Your task to perform on an android device: toggle priority inbox in the gmail app Image 0: 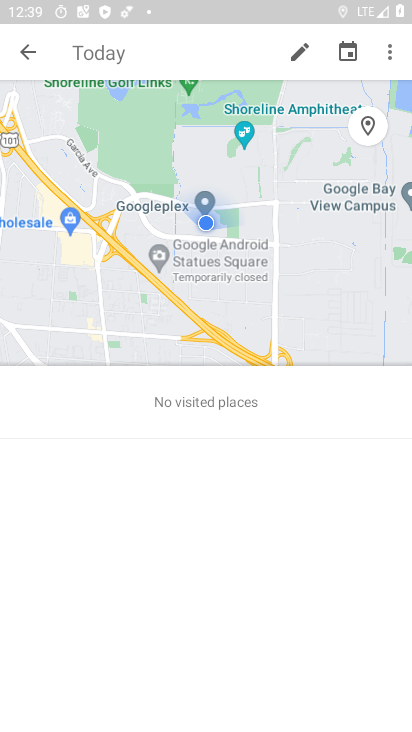
Step 0: press home button
Your task to perform on an android device: toggle priority inbox in the gmail app Image 1: 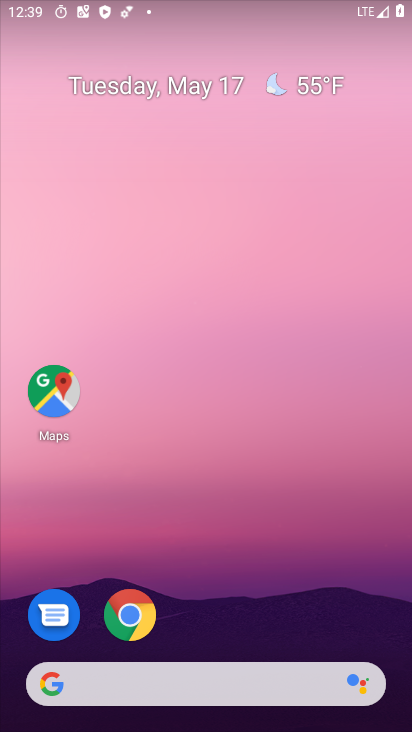
Step 1: drag from (296, 565) to (285, 73)
Your task to perform on an android device: toggle priority inbox in the gmail app Image 2: 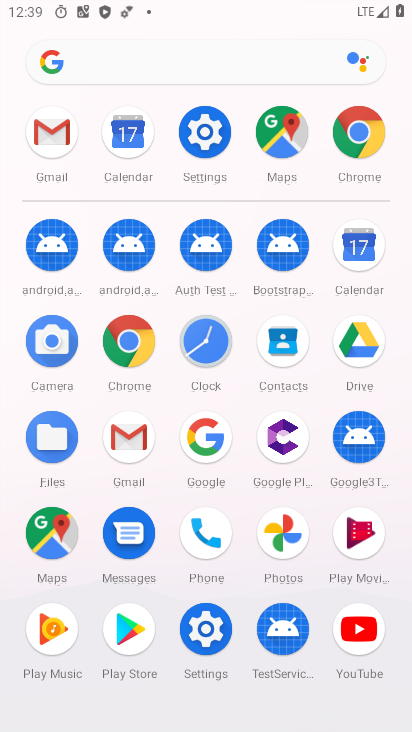
Step 2: click (52, 115)
Your task to perform on an android device: toggle priority inbox in the gmail app Image 3: 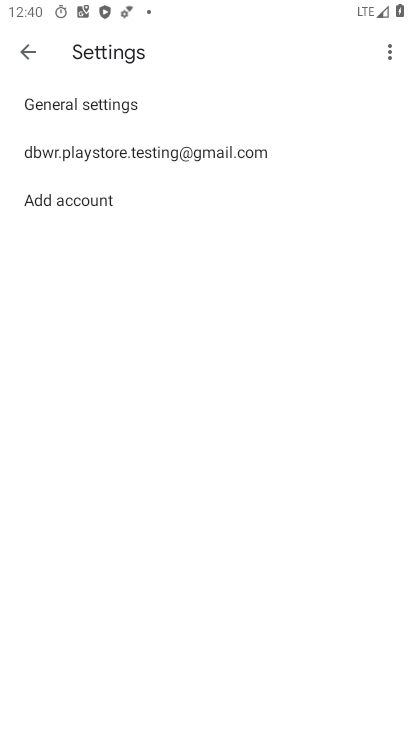
Step 3: click (71, 156)
Your task to perform on an android device: toggle priority inbox in the gmail app Image 4: 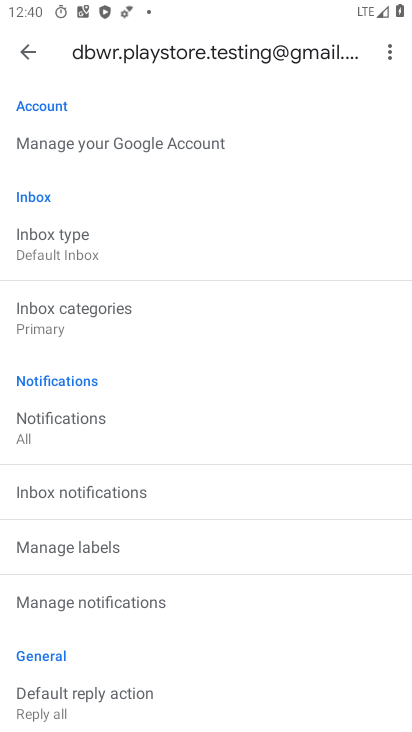
Step 4: click (91, 247)
Your task to perform on an android device: toggle priority inbox in the gmail app Image 5: 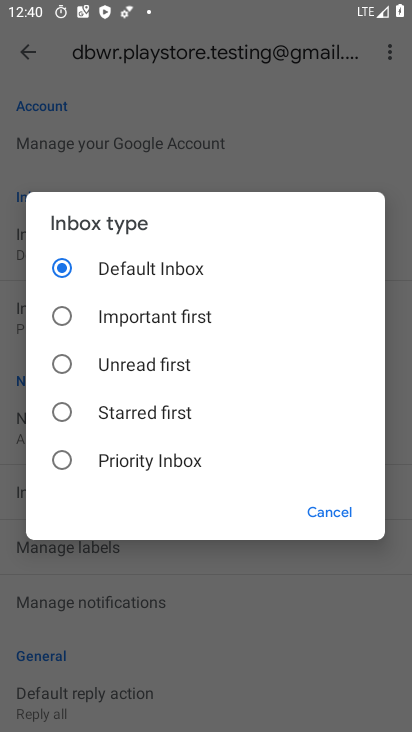
Step 5: click (130, 457)
Your task to perform on an android device: toggle priority inbox in the gmail app Image 6: 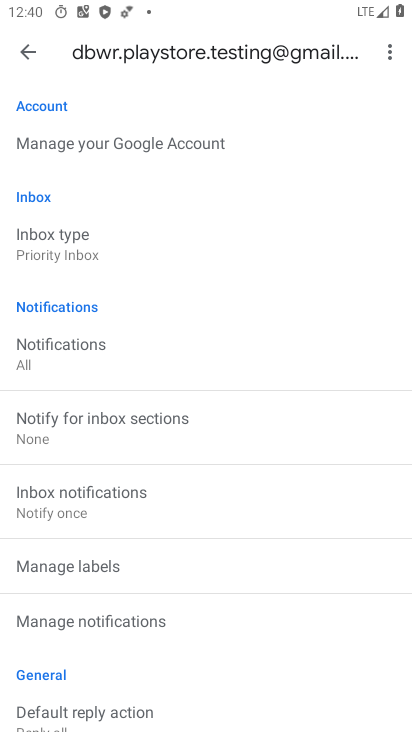
Step 6: task complete